Your task to perform on an android device: clear all cookies in the chrome app Image 0: 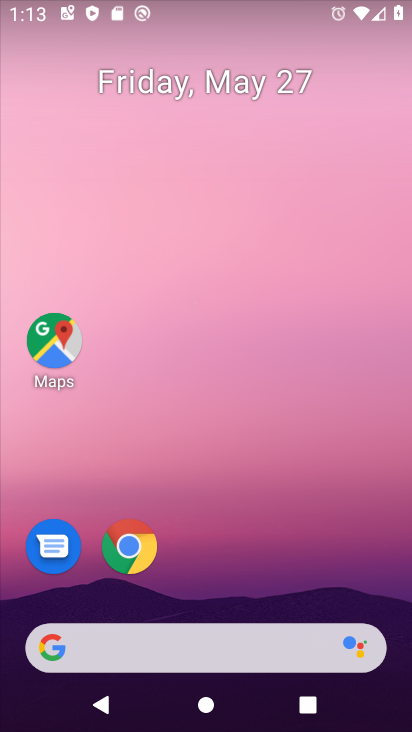
Step 0: press home button
Your task to perform on an android device: clear all cookies in the chrome app Image 1: 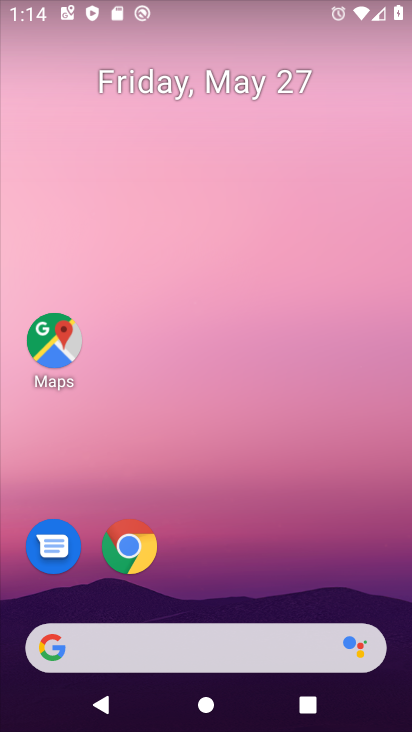
Step 1: drag from (239, 673) to (140, 193)
Your task to perform on an android device: clear all cookies in the chrome app Image 2: 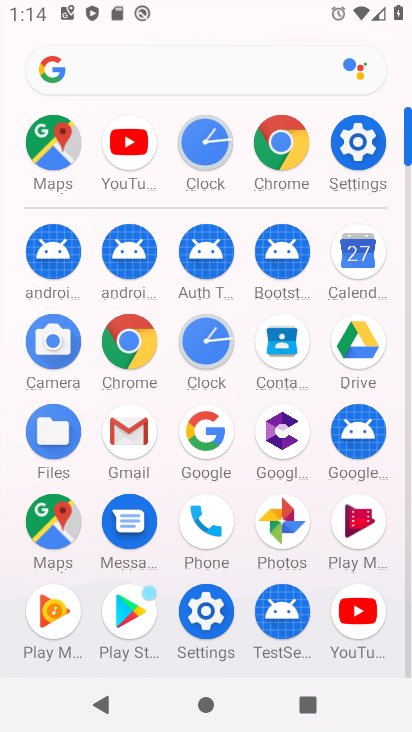
Step 2: click (289, 152)
Your task to perform on an android device: clear all cookies in the chrome app Image 3: 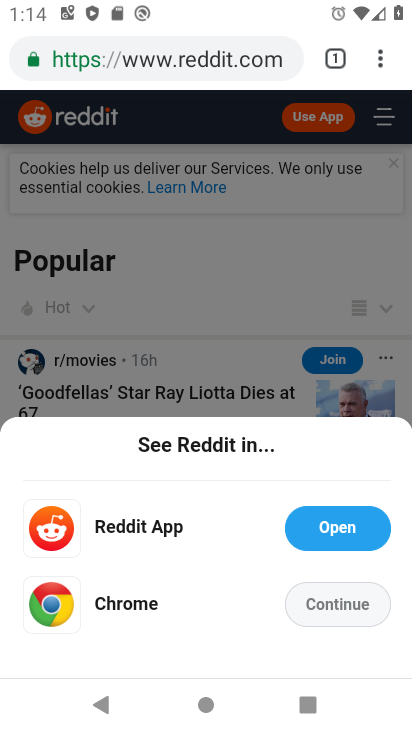
Step 3: click (375, 62)
Your task to perform on an android device: clear all cookies in the chrome app Image 4: 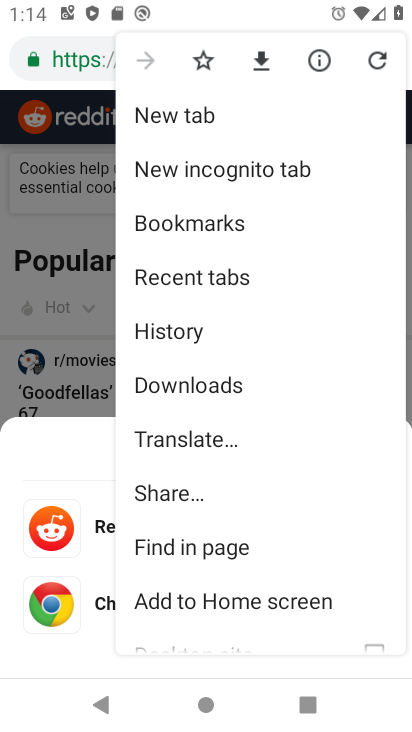
Step 4: click (171, 328)
Your task to perform on an android device: clear all cookies in the chrome app Image 5: 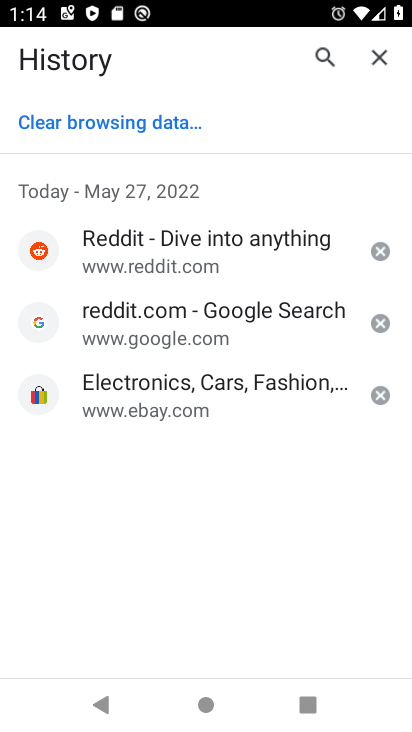
Step 5: click (98, 118)
Your task to perform on an android device: clear all cookies in the chrome app Image 6: 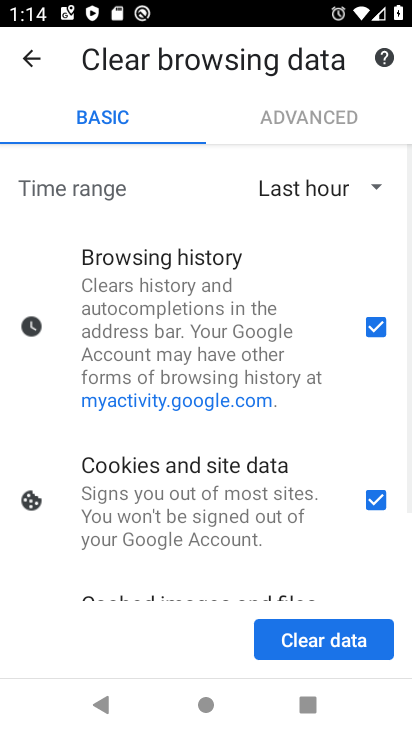
Step 6: click (397, 335)
Your task to perform on an android device: clear all cookies in the chrome app Image 7: 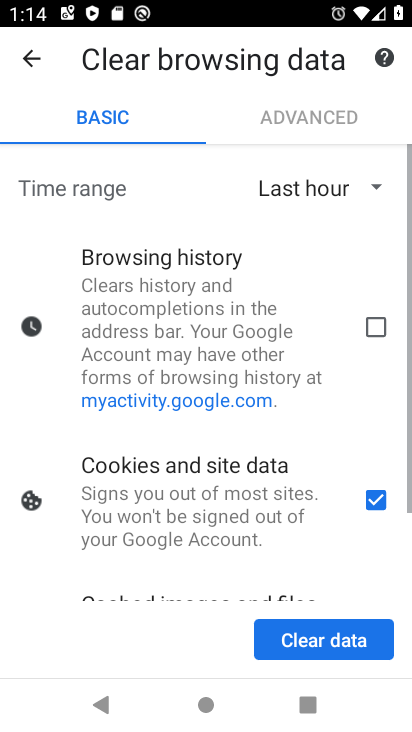
Step 7: click (354, 647)
Your task to perform on an android device: clear all cookies in the chrome app Image 8: 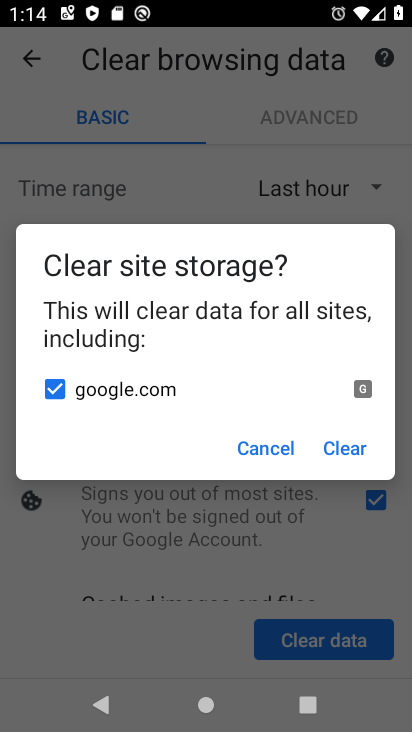
Step 8: click (355, 448)
Your task to perform on an android device: clear all cookies in the chrome app Image 9: 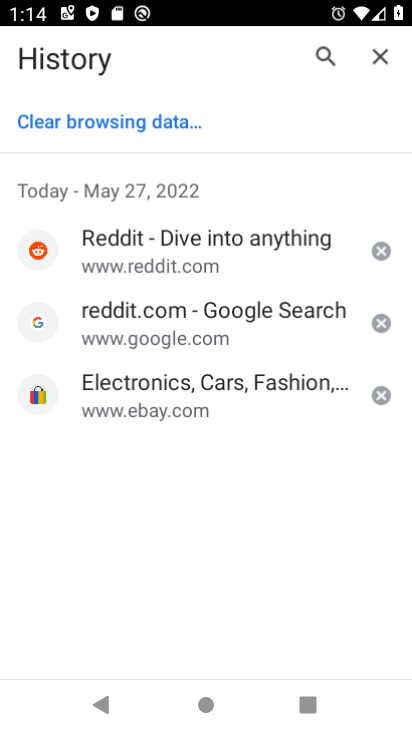
Step 9: task complete